Your task to perform on an android device: turn on the 12-hour format for clock Image 0: 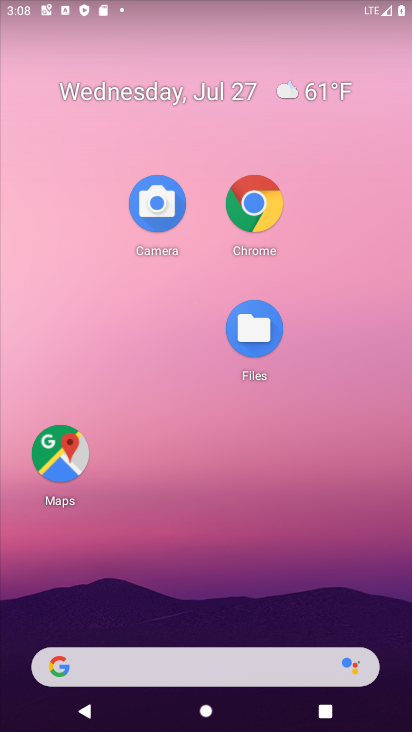
Step 0: drag from (168, 591) to (169, 137)
Your task to perform on an android device: turn on the 12-hour format for clock Image 1: 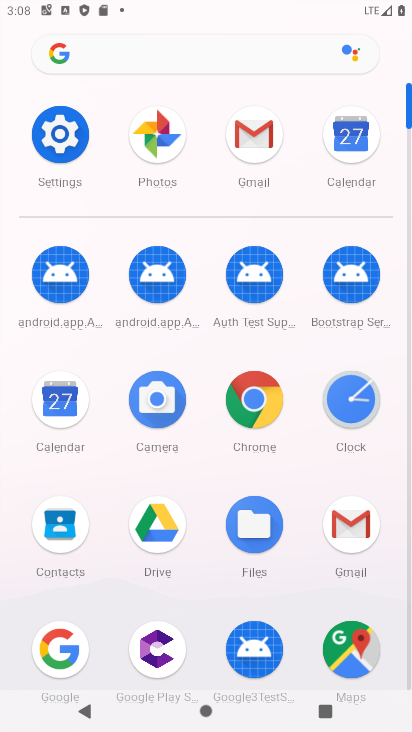
Step 1: click (340, 417)
Your task to perform on an android device: turn on the 12-hour format for clock Image 2: 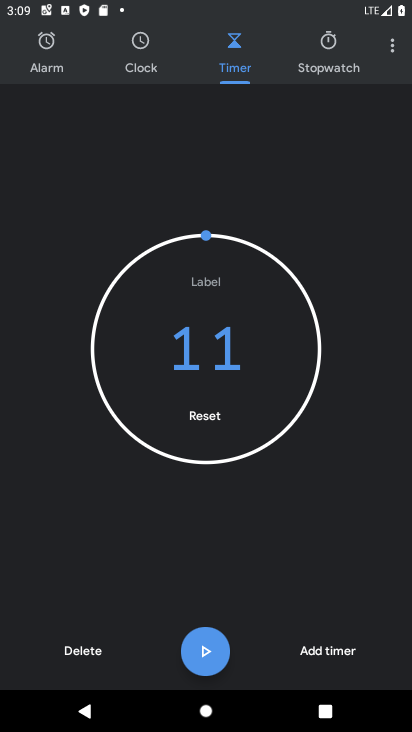
Step 2: click (388, 44)
Your task to perform on an android device: turn on the 12-hour format for clock Image 3: 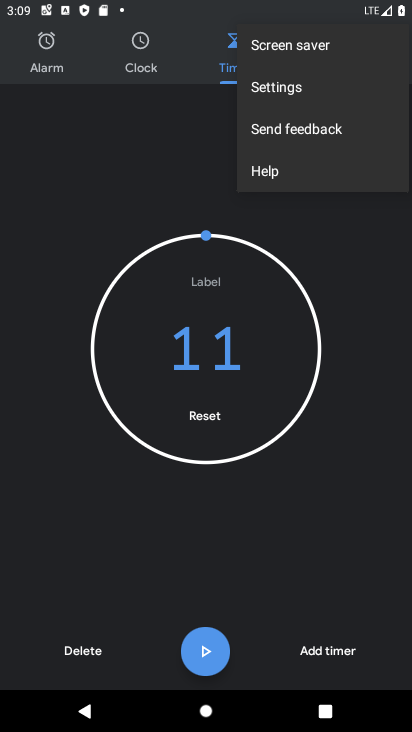
Step 3: click (312, 90)
Your task to perform on an android device: turn on the 12-hour format for clock Image 4: 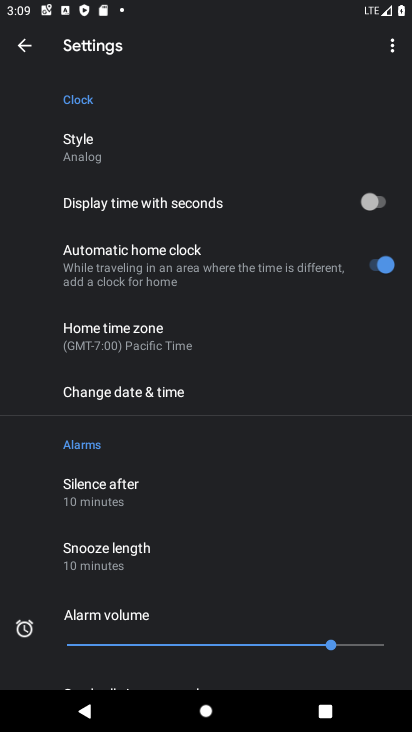
Step 4: click (156, 399)
Your task to perform on an android device: turn on the 12-hour format for clock Image 5: 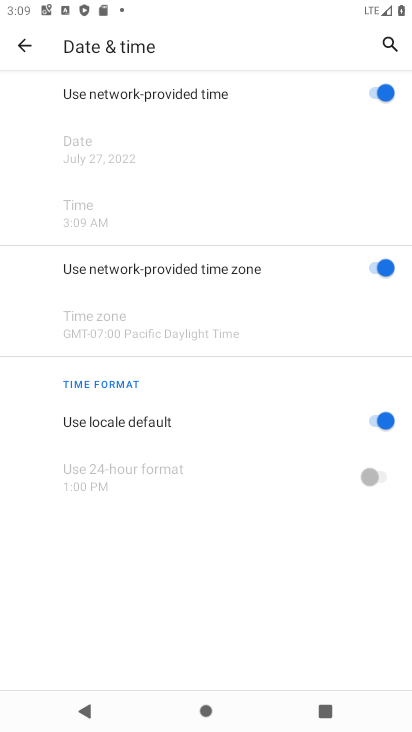
Step 5: task complete